Your task to perform on an android device: clear history in the chrome app Image 0: 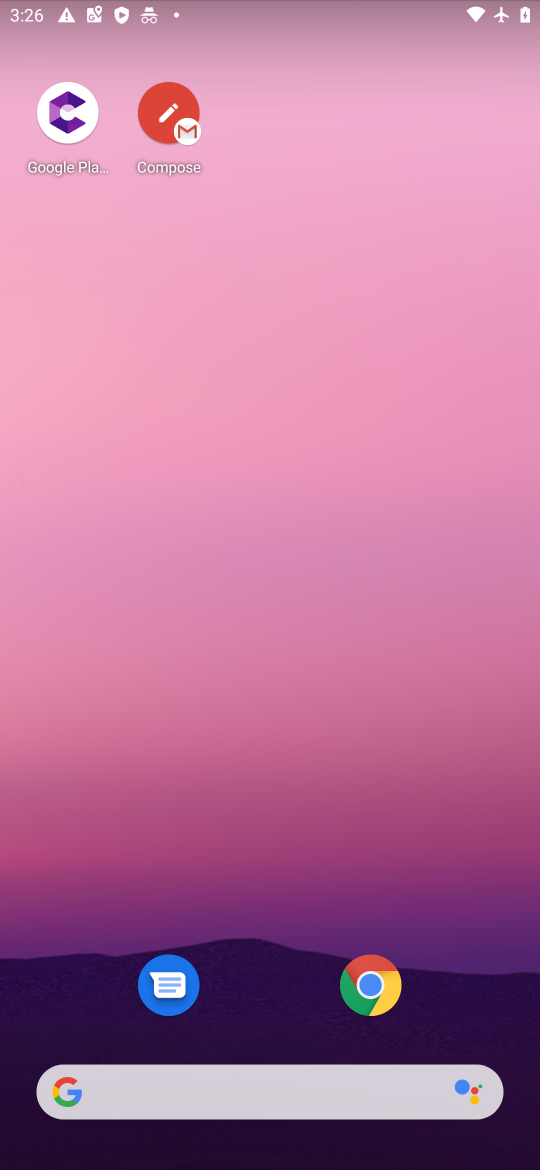
Step 0: drag from (126, 185) to (64, 221)
Your task to perform on an android device: clear history in the chrome app Image 1: 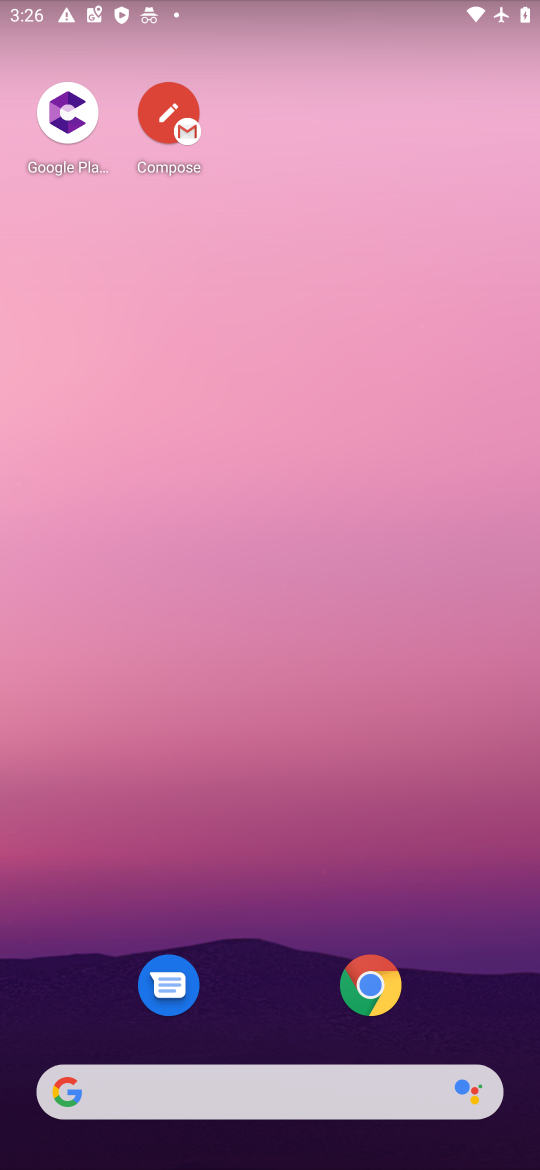
Step 1: drag from (355, 1003) to (211, 273)
Your task to perform on an android device: clear history in the chrome app Image 2: 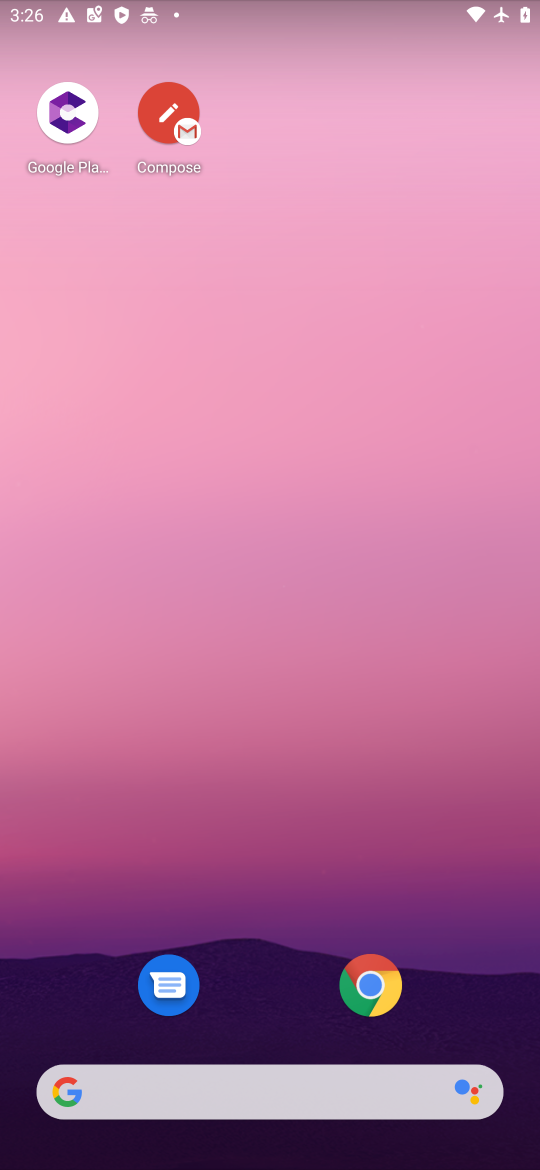
Step 2: drag from (329, 946) to (257, 259)
Your task to perform on an android device: clear history in the chrome app Image 3: 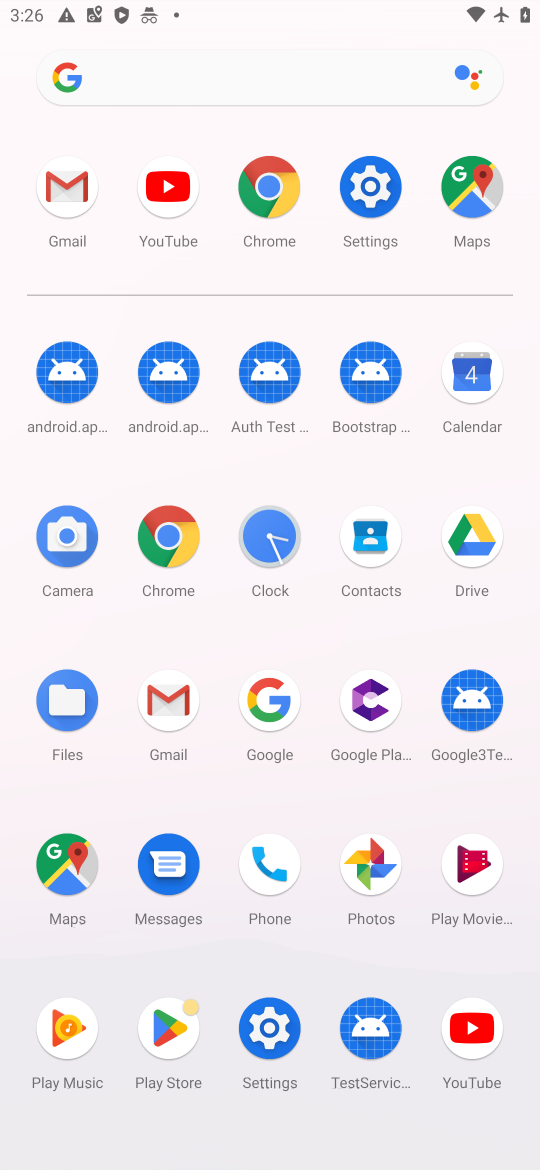
Step 3: click (268, 189)
Your task to perform on an android device: clear history in the chrome app Image 4: 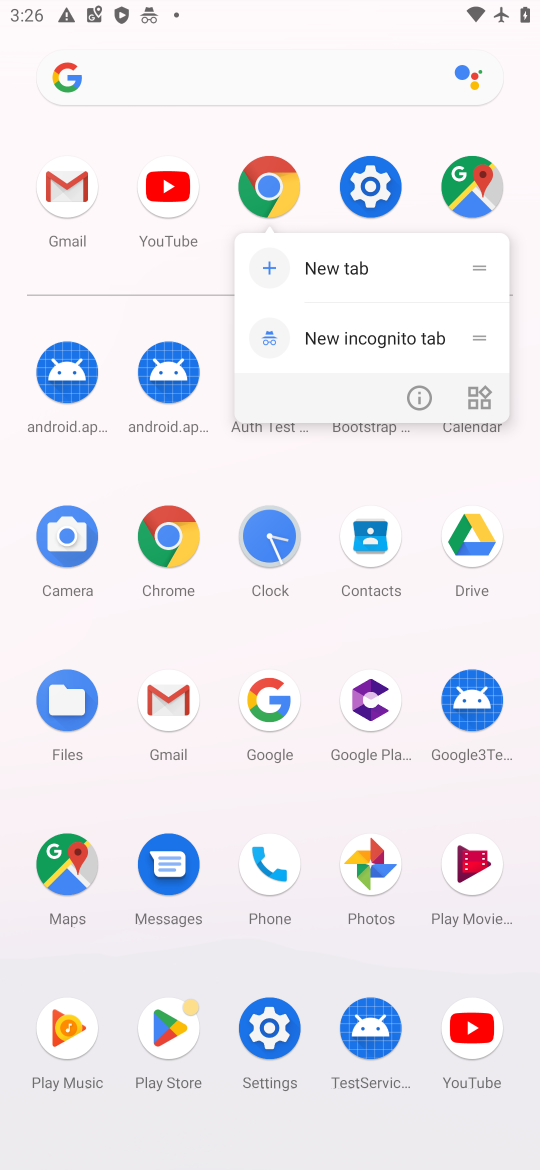
Step 4: click (327, 268)
Your task to perform on an android device: clear history in the chrome app Image 5: 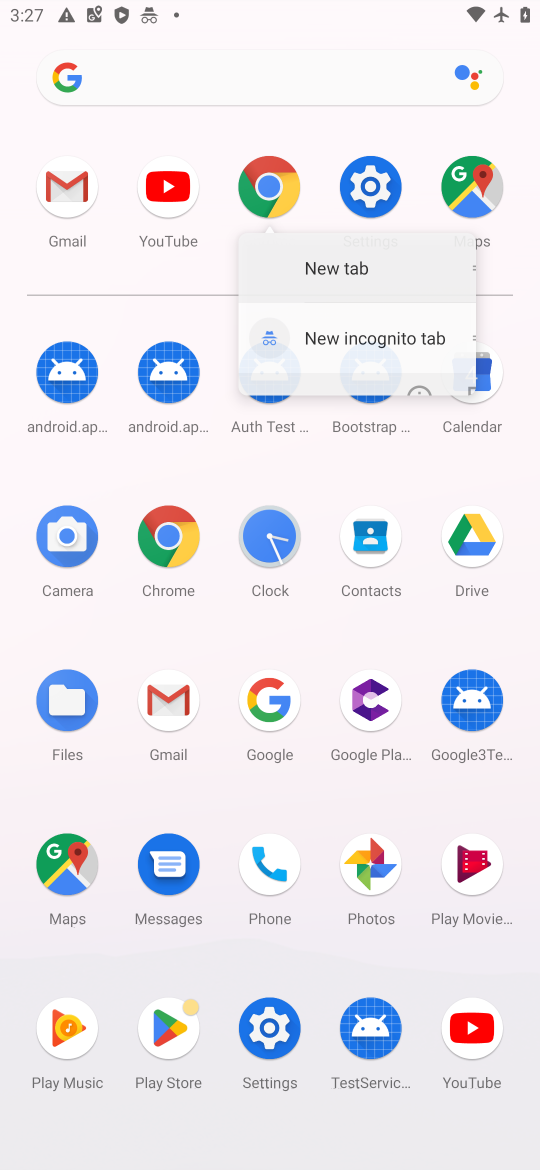
Step 5: click (325, 287)
Your task to perform on an android device: clear history in the chrome app Image 6: 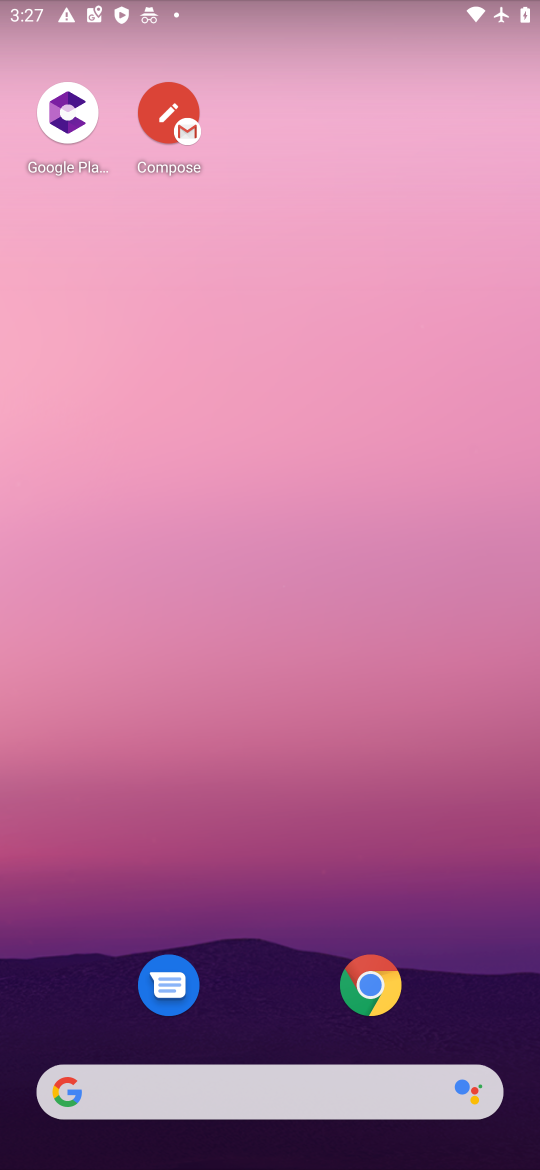
Step 6: drag from (337, 945) to (215, 498)
Your task to perform on an android device: clear history in the chrome app Image 7: 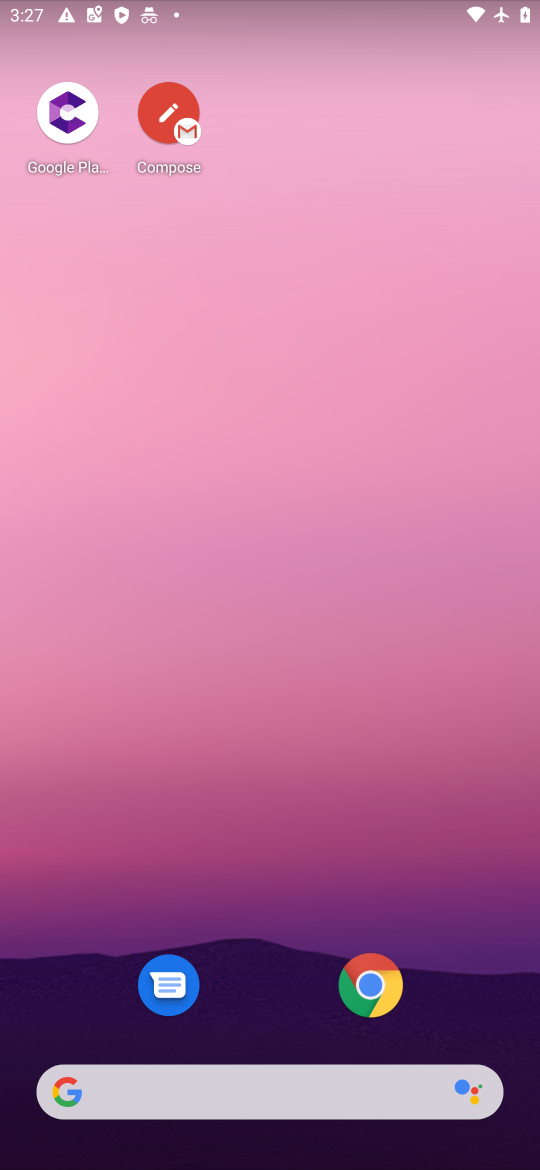
Step 7: drag from (290, 999) to (260, 790)
Your task to perform on an android device: clear history in the chrome app Image 8: 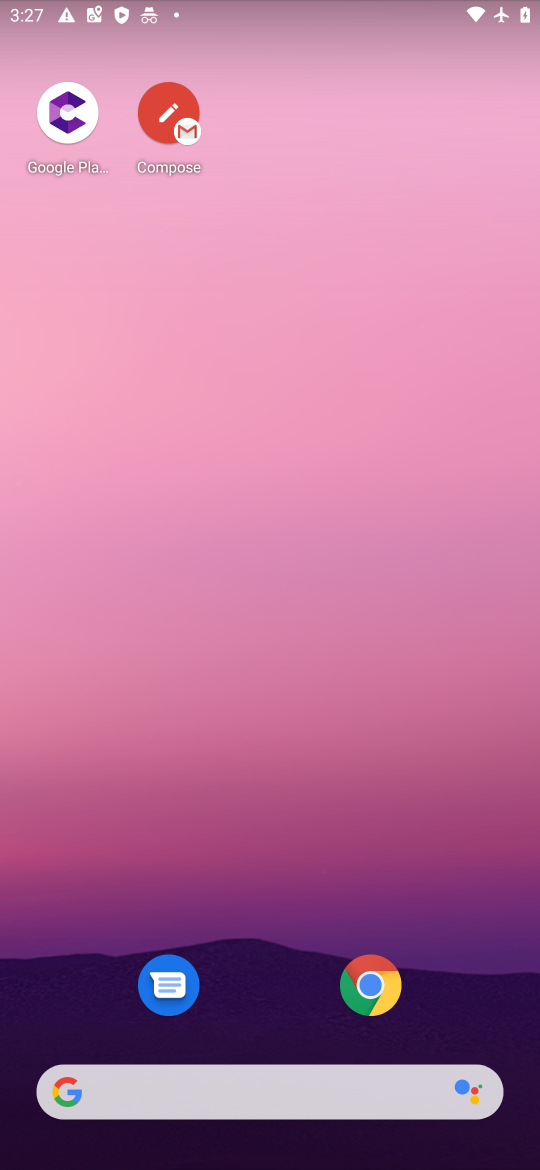
Step 8: drag from (303, 795) to (95, 201)
Your task to perform on an android device: clear history in the chrome app Image 9: 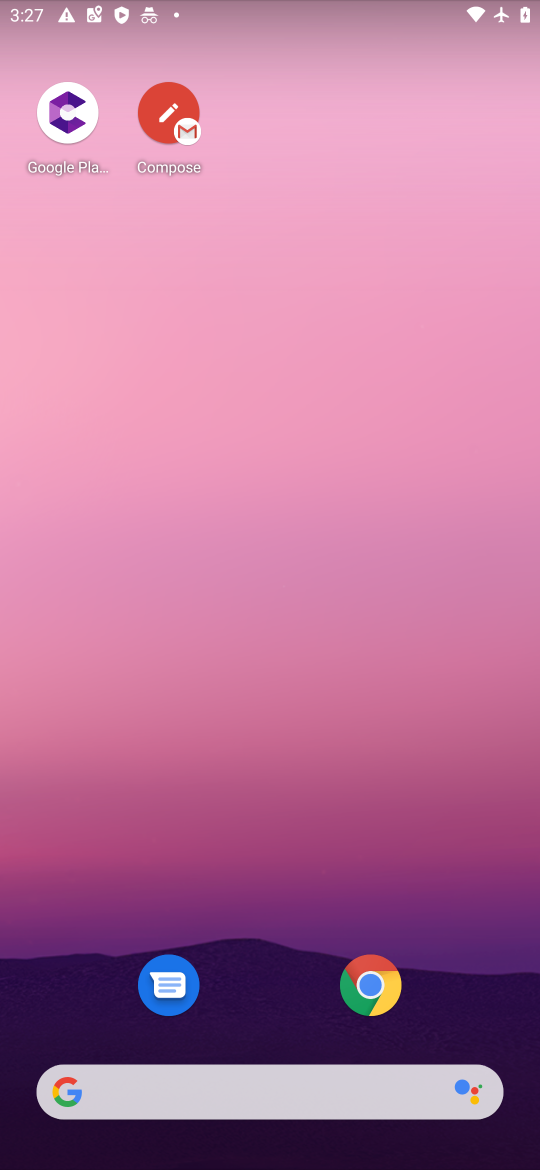
Step 9: drag from (361, 973) to (283, 327)
Your task to perform on an android device: clear history in the chrome app Image 10: 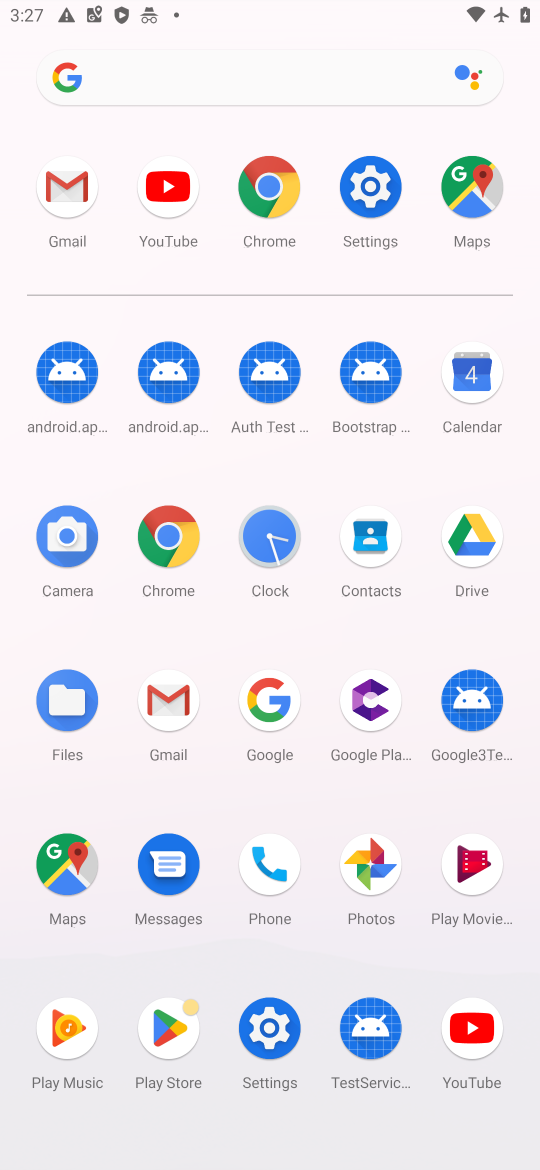
Step 10: drag from (156, 1158) to (223, 1147)
Your task to perform on an android device: clear history in the chrome app Image 11: 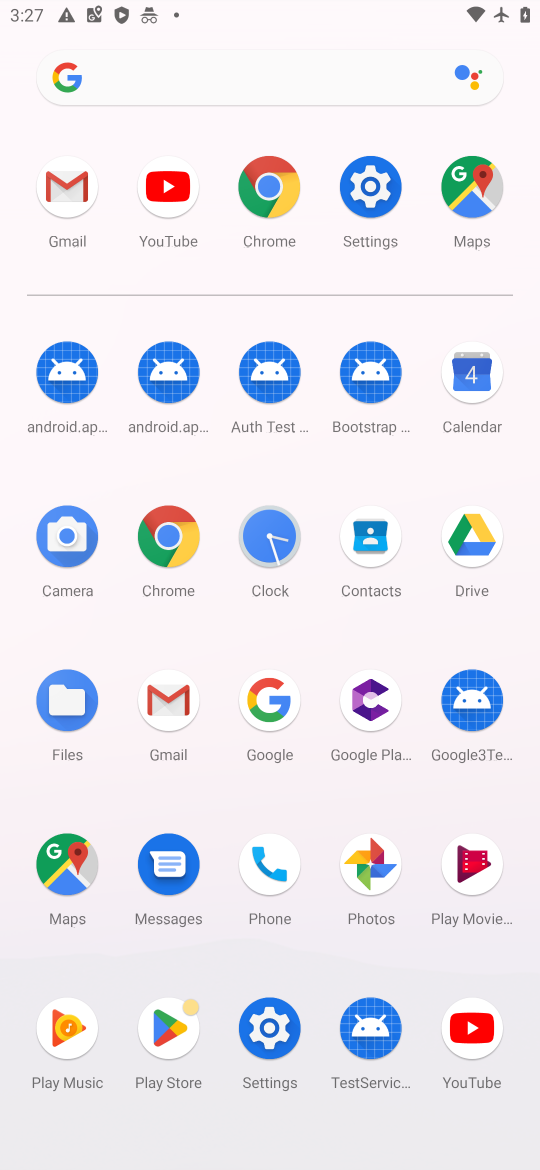
Step 11: click (275, 169)
Your task to perform on an android device: clear history in the chrome app Image 12: 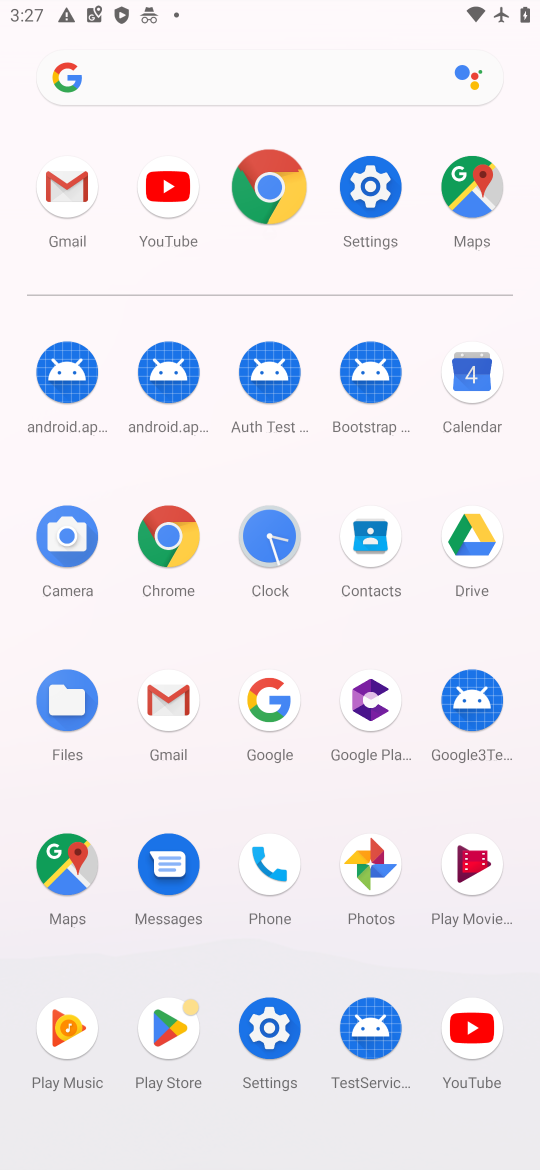
Step 12: click (268, 179)
Your task to perform on an android device: clear history in the chrome app Image 13: 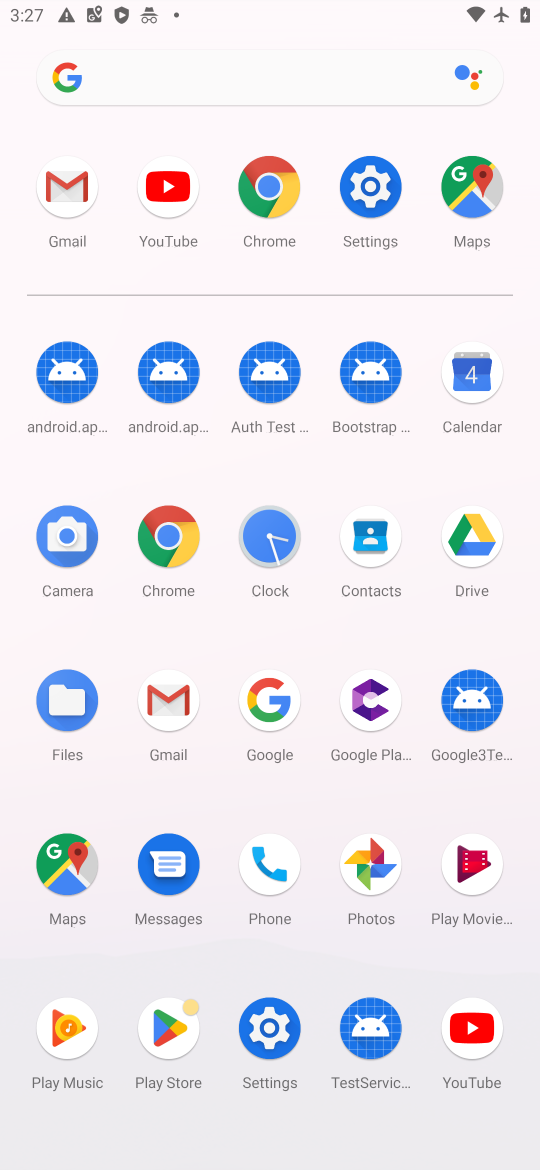
Step 13: click (362, 179)
Your task to perform on an android device: clear history in the chrome app Image 14: 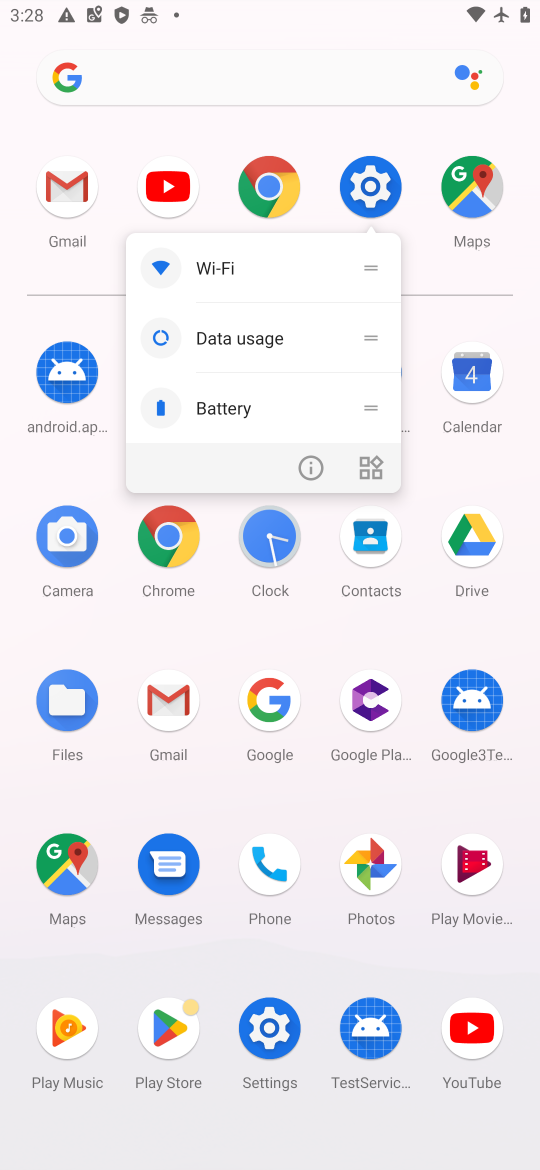
Step 14: click (146, 546)
Your task to perform on an android device: clear history in the chrome app Image 15: 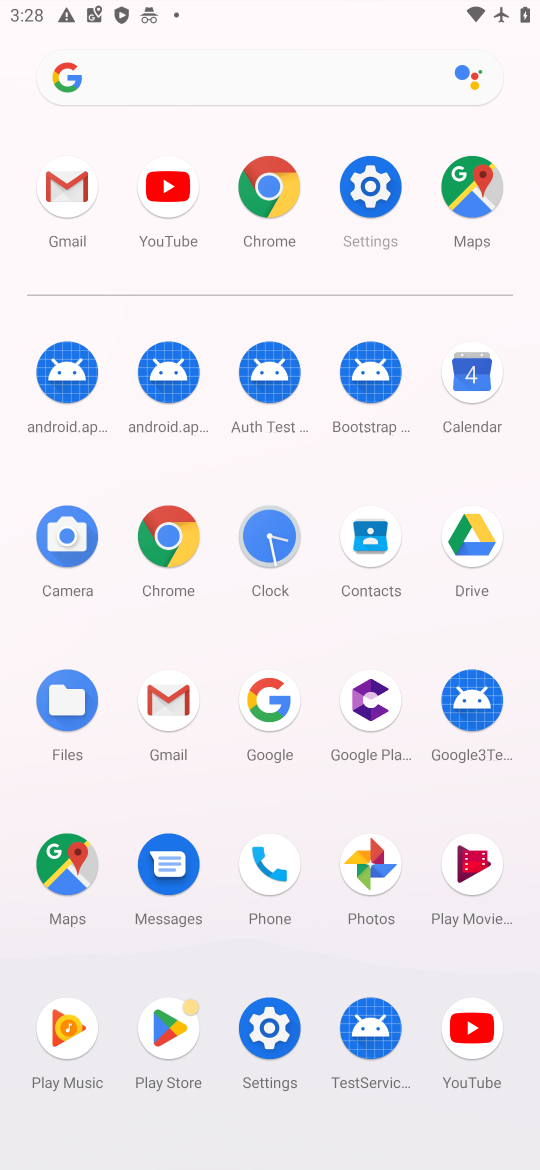
Step 15: click (160, 556)
Your task to perform on an android device: clear history in the chrome app Image 16: 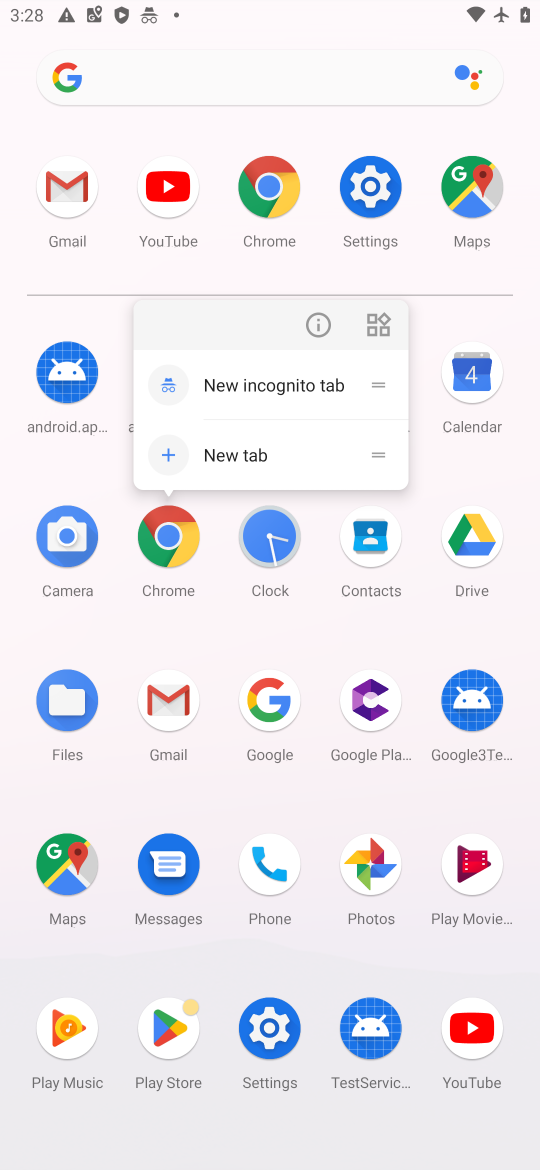
Step 16: click (157, 546)
Your task to perform on an android device: clear history in the chrome app Image 17: 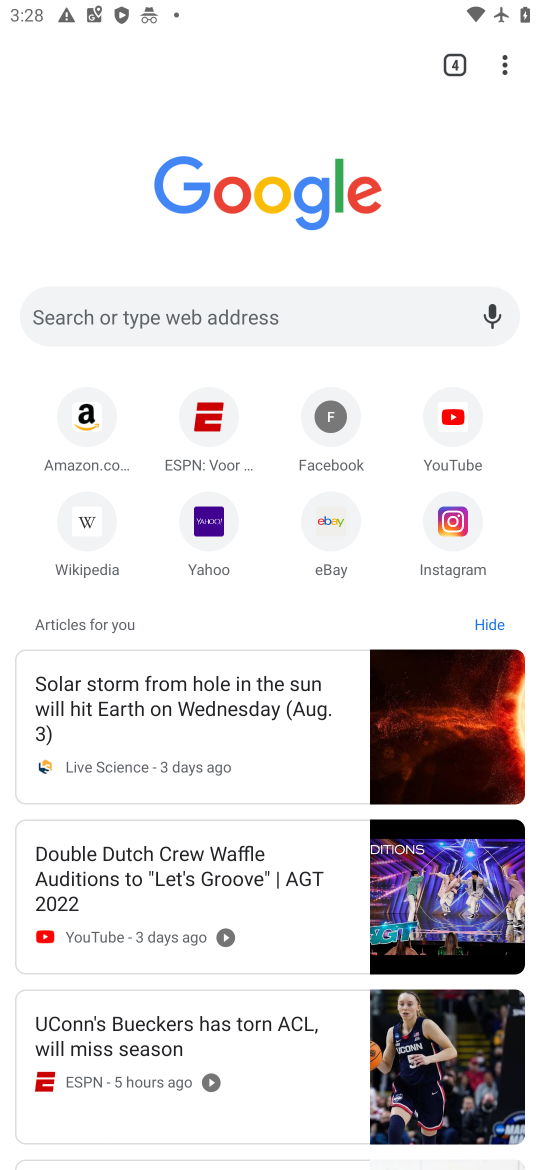
Step 17: drag from (511, 69) to (263, 380)
Your task to perform on an android device: clear history in the chrome app Image 18: 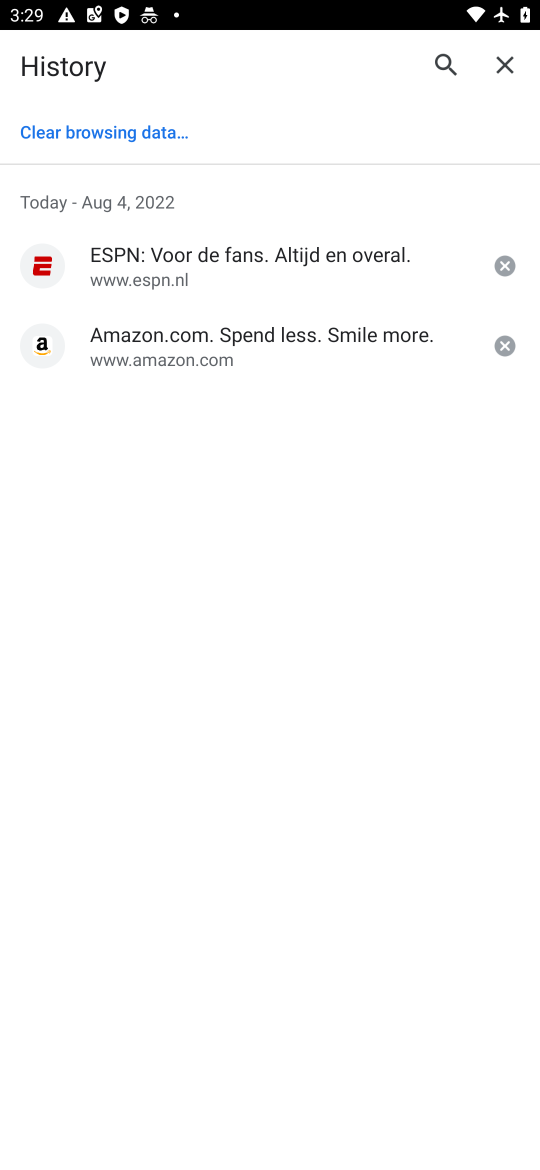
Step 18: click (108, 125)
Your task to perform on an android device: clear history in the chrome app Image 19: 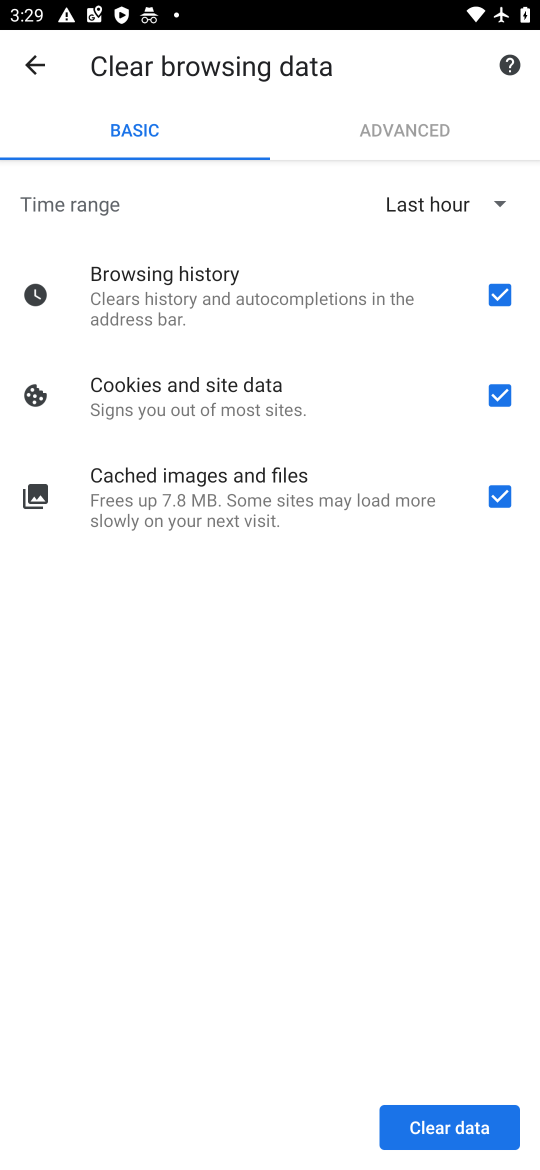
Step 19: click (446, 1142)
Your task to perform on an android device: clear history in the chrome app Image 20: 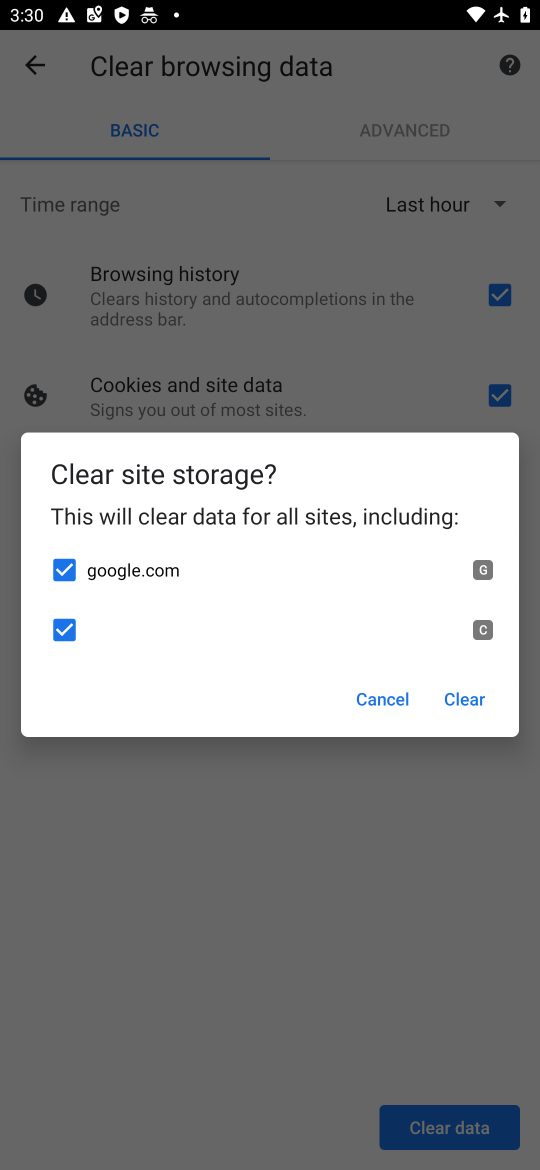
Step 20: click (401, 696)
Your task to perform on an android device: clear history in the chrome app Image 21: 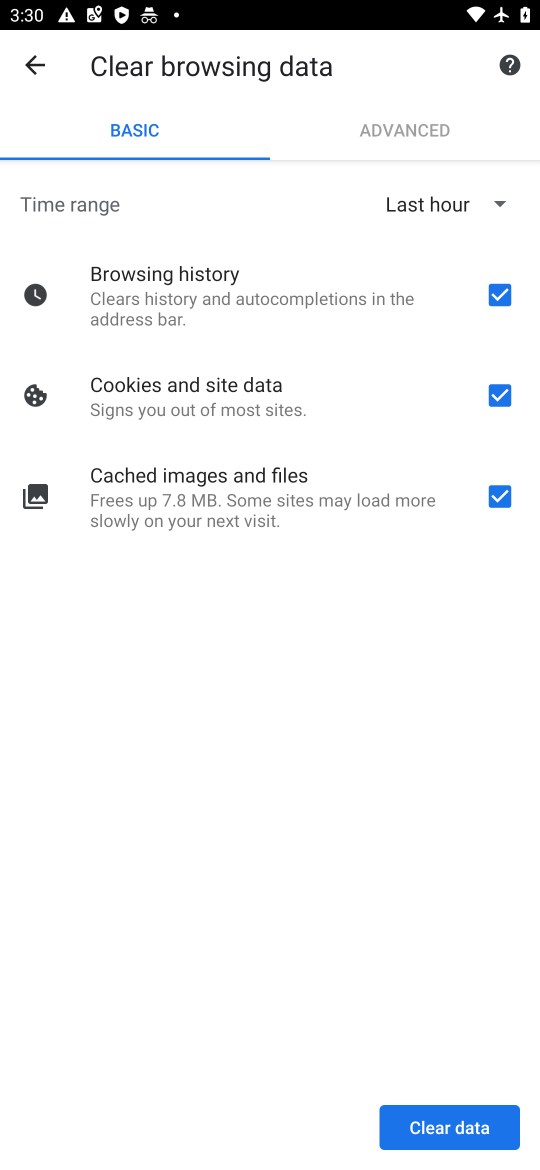
Step 21: task complete